Your task to perform on an android device: turn on the 12-hour format for clock Image 0: 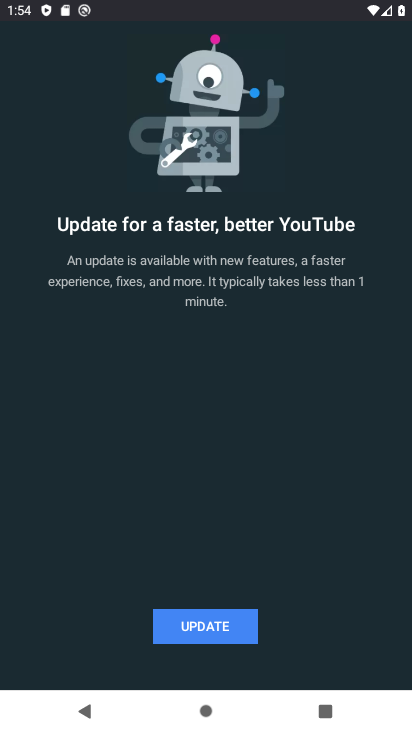
Step 0: press home button
Your task to perform on an android device: turn on the 12-hour format for clock Image 1: 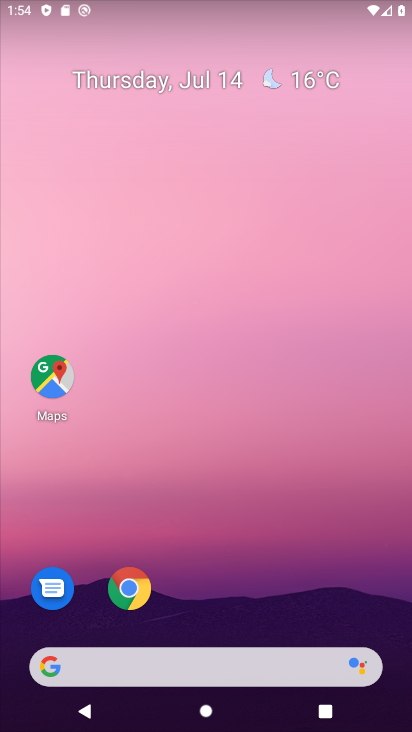
Step 1: drag from (248, 604) to (255, 144)
Your task to perform on an android device: turn on the 12-hour format for clock Image 2: 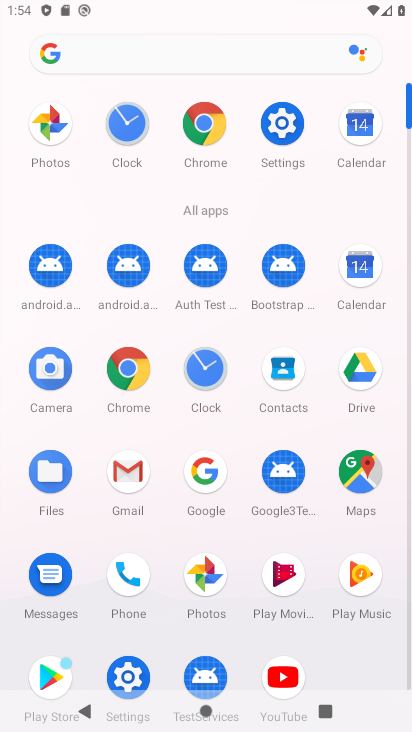
Step 2: click (204, 377)
Your task to perform on an android device: turn on the 12-hour format for clock Image 3: 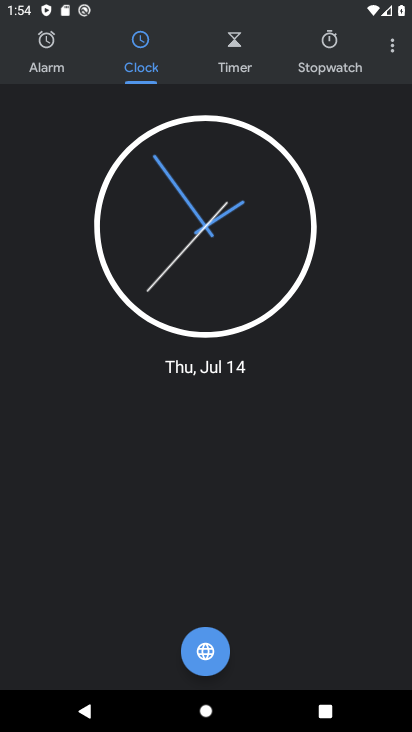
Step 3: click (381, 44)
Your task to perform on an android device: turn on the 12-hour format for clock Image 4: 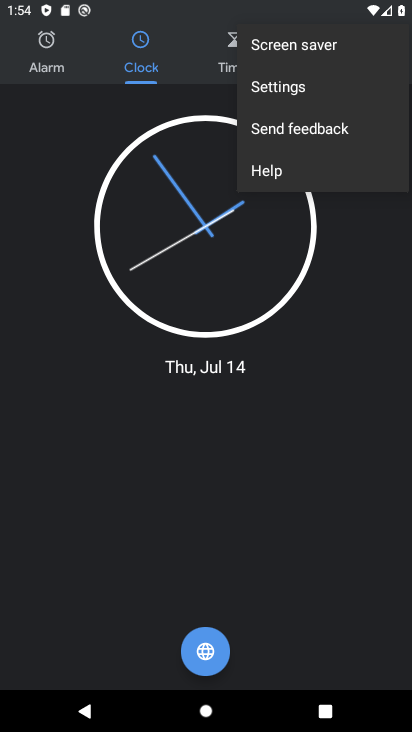
Step 4: click (311, 88)
Your task to perform on an android device: turn on the 12-hour format for clock Image 5: 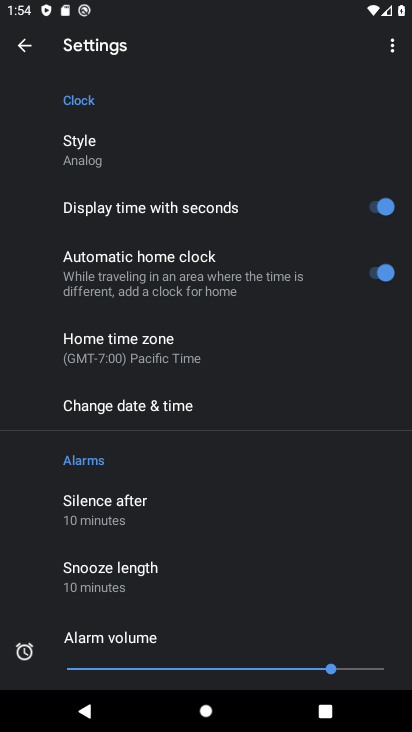
Step 5: click (199, 402)
Your task to perform on an android device: turn on the 12-hour format for clock Image 6: 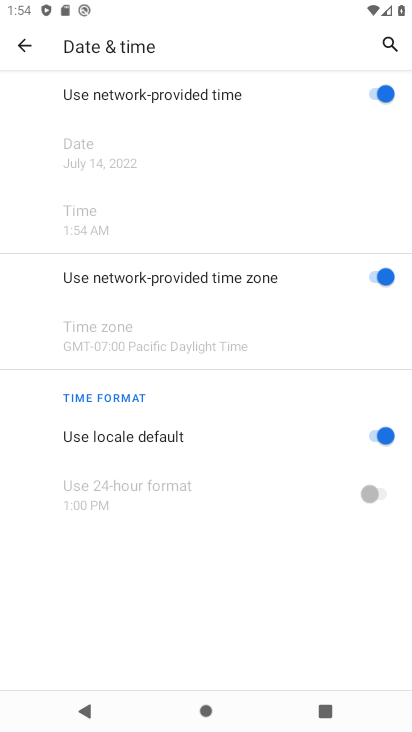
Step 6: task complete